Your task to perform on an android device: Go to Yahoo.com Image 0: 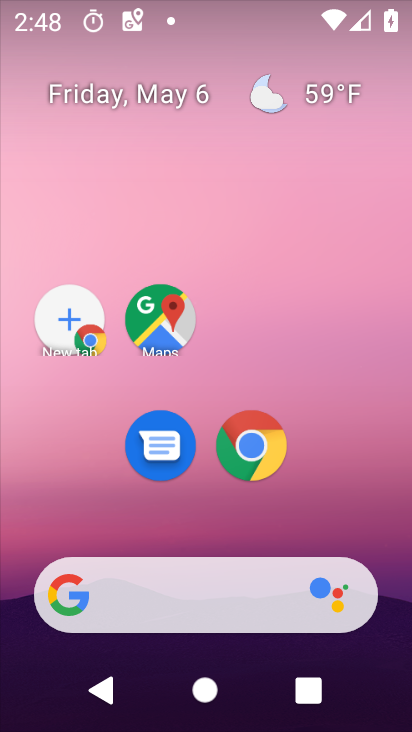
Step 0: drag from (386, 690) to (275, 223)
Your task to perform on an android device: Go to Yahoo.com Image 1: 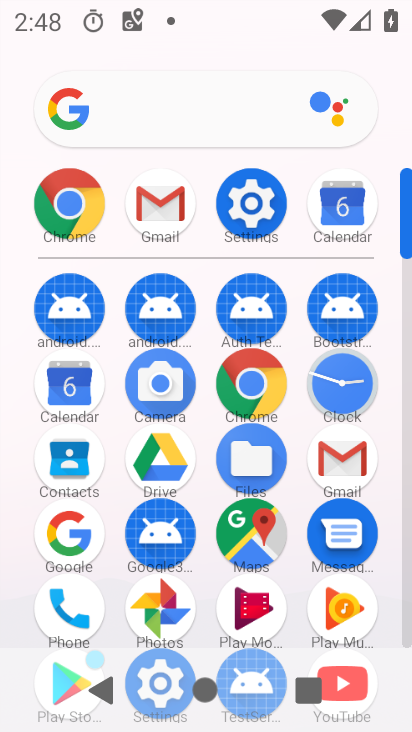
Step 1: click (259, 389)
Your task to perform on an android device: Go to Yahoo.com Image 2: 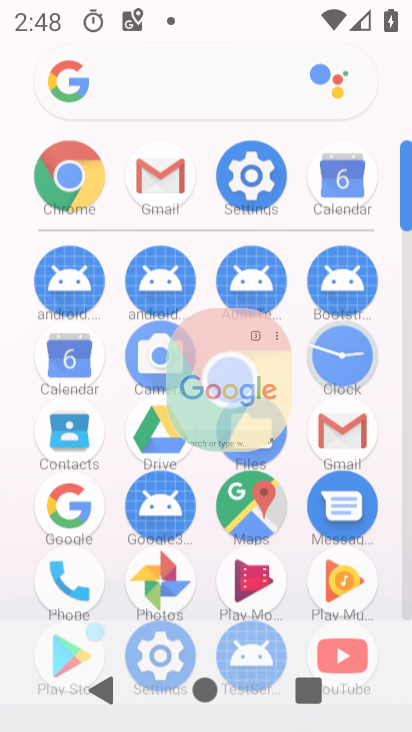
Step 2: click (259, 389)
Your task to perform on an android device: Go to Yahoo.com Image 3: 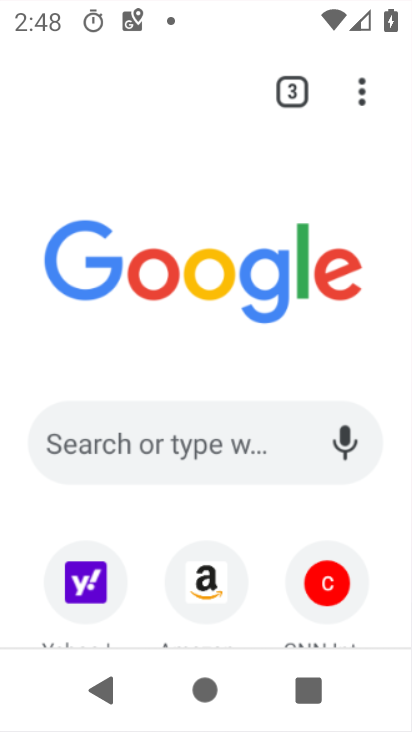
Step 3: click (259, 389)
Your task to perform on an android device: Go to Yahoo.com Image 4: 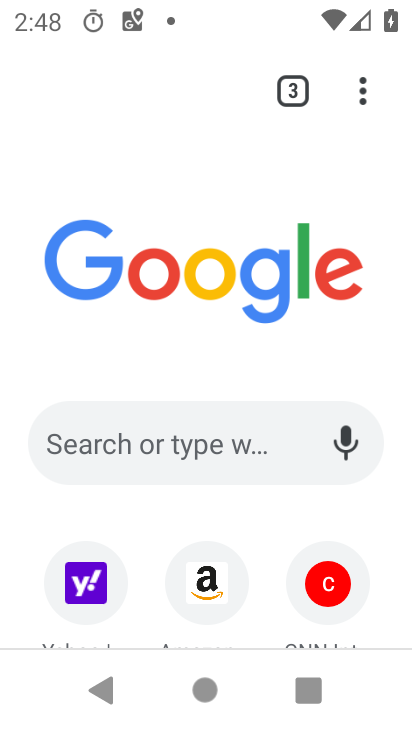
Step 4: drag from (268, 574) to (223, 216)
Your task to perform on an android device: Go to Yahoo.com Image 5: 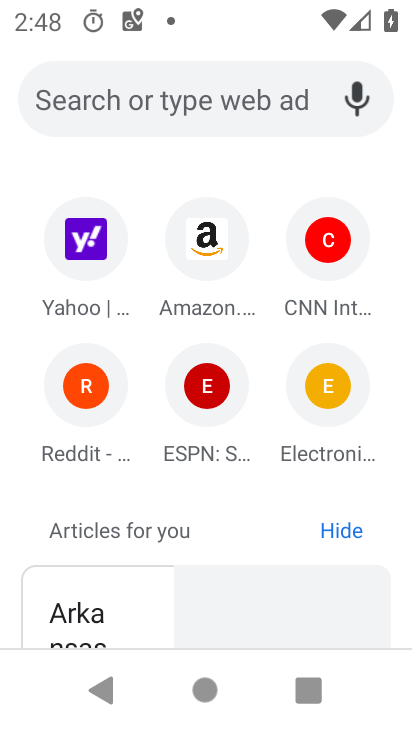
Step 5: drag from (274, 499) to (194, 158)
Your task to perform on an android device: Go to Yahoo.com Image 6: 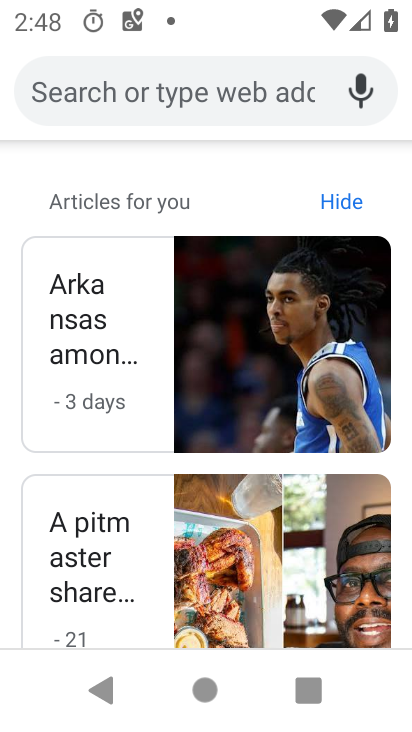
Step 6: drag from (170, 275) to (251, 465)
Your task to perform on an android device: Go to Yahoo.com Image 7: 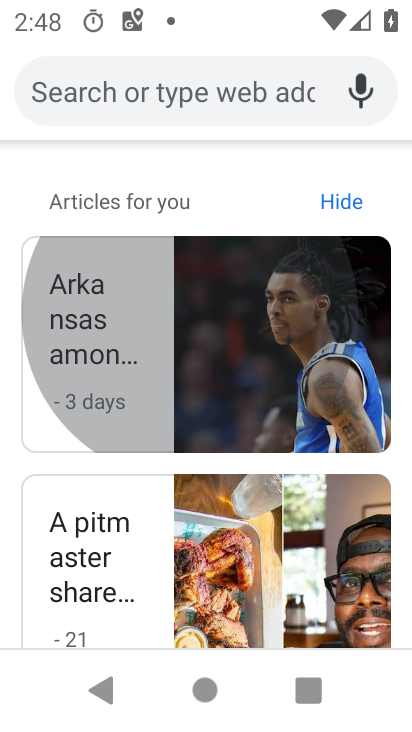
Step 7: drag from (191, 260) to (196, 505)
Your task to perform on an android device: Go to Yahoo.com Image 8: 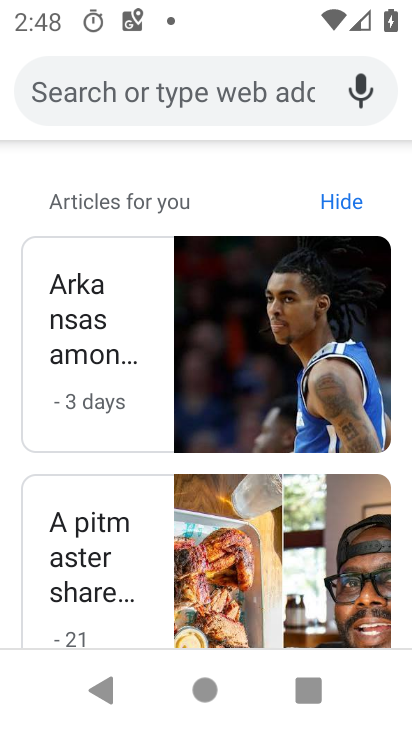
Step 8: drag from (281, 255) to (336, 498)
Your task to perform on an android device: Go to Yahoo.com Image 9: 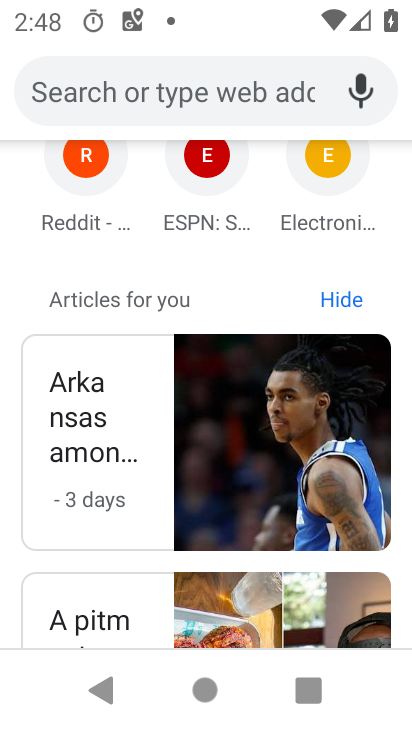
Step 9: drag from (277, 259) to (344, 511)
Your task to perform on an android device: Go to Yahoo.com Image 10: 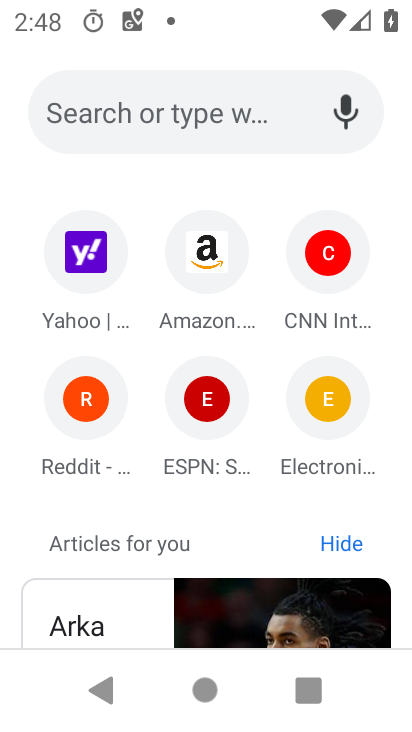
Step 10: click (102, 268)
Your task to perform on an android device: Go to Yahoo.com Image 11: 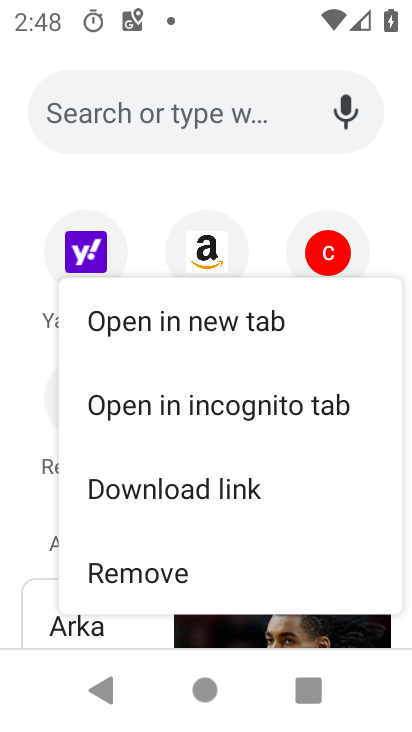
Step 11: click (129, 324)
Your task to perform on an android device: Go to Yahoo.com Image 12: 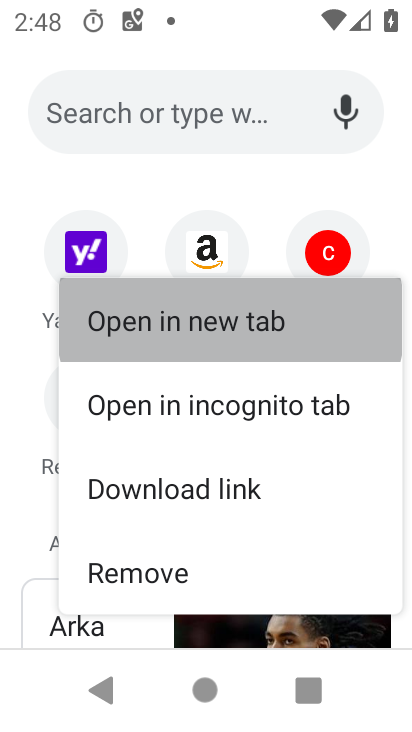
Step 12: click (129, 324)
Your task to perform on an android device: Go to Yahoo.com Image 13: 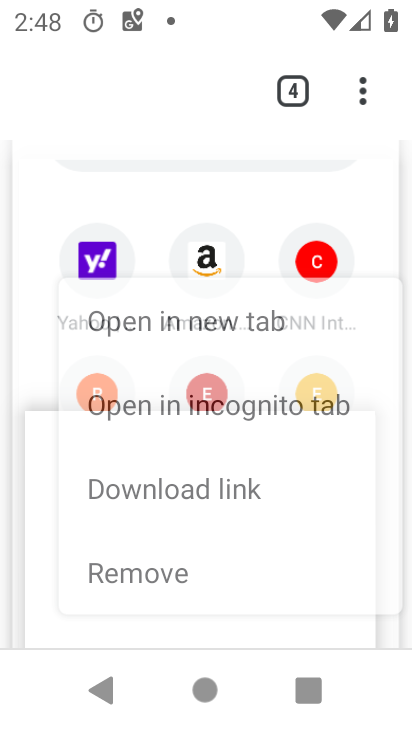
Step 13: click (129, 324)
Your task to perform on an android device: Go to Yahoo.com Image 14: 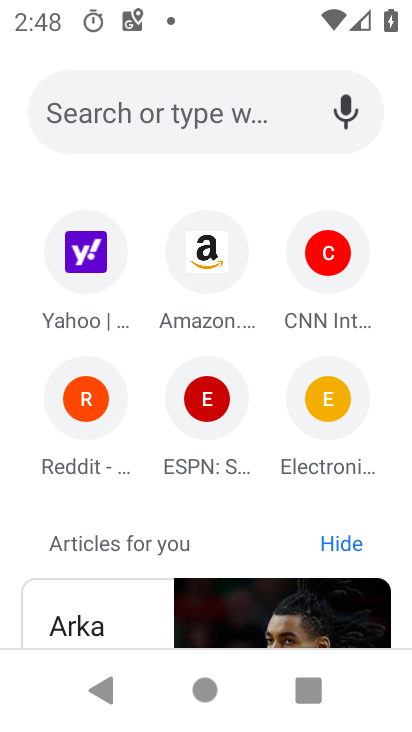
Step 14: click (84, 247)
Your task to perform on an android device: Go to Yahoo.com Image 15: 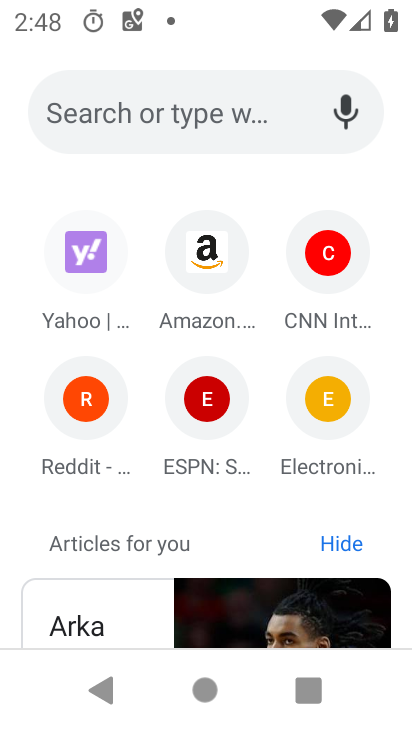
Step 15: click (83, 248)
Your task to perform on an android device: Go to Yahoo.com Image 16: 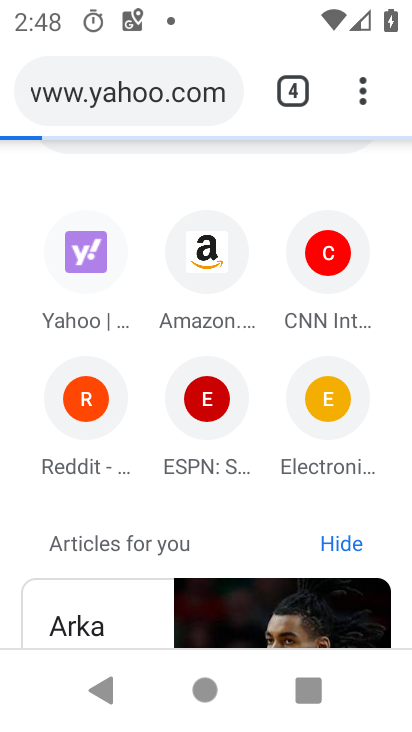
Step 16: click (83, 248)
Your task to perform on an android device: Go to Yahoo.com Image 17: 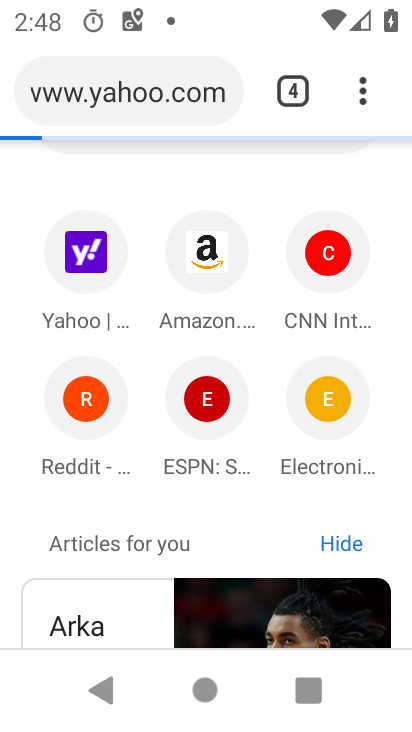
Step 17: click (84, 248)
Your task to perform on an android device: Go to Yahoo.com Image 18: 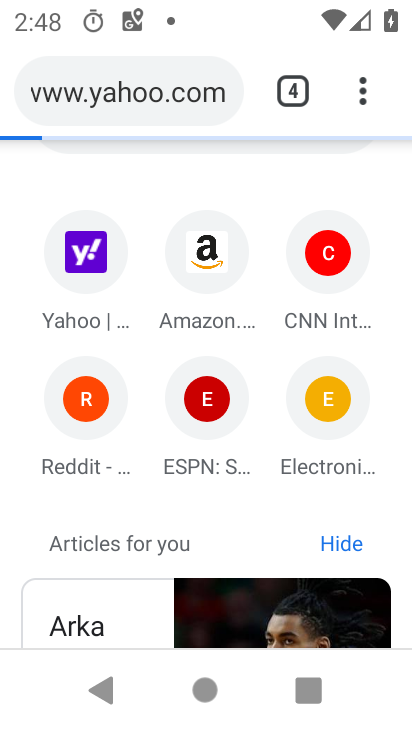
Step 18: click (84, 248)
Your task to perform on an android device: Go to Yahoo.com Image 19: 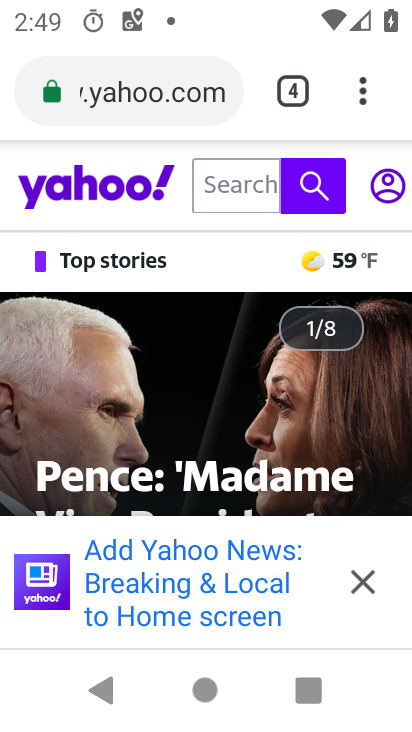
Step 19: task complete